Your task to perform on an android device: change the clock display to analog Image 0: 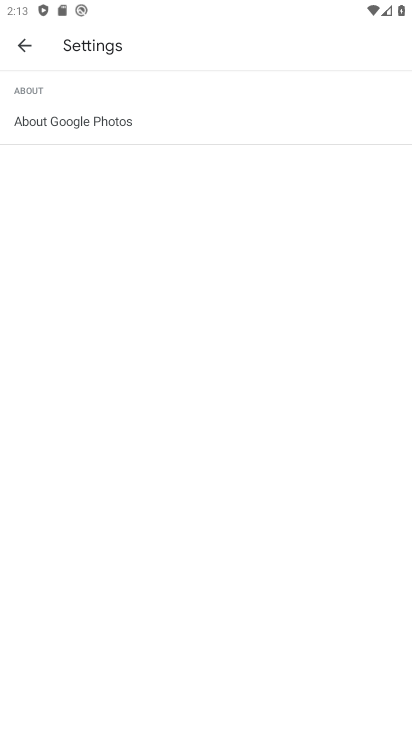
Step 0: press home button
Your task to perform on an android device: change the clock display to analog Image 1: 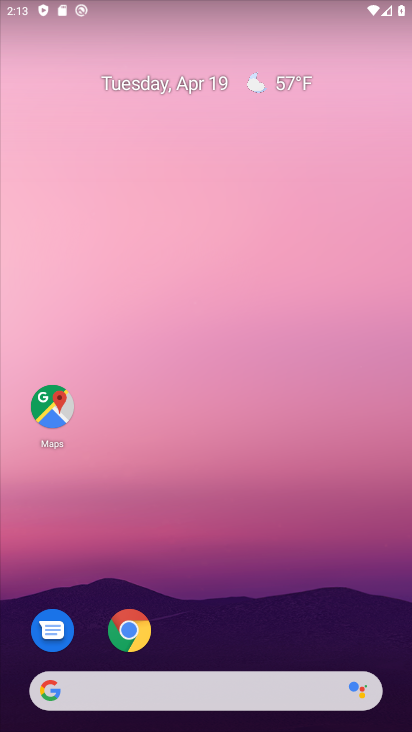
Step 1: drag from (235, 577) to (209, 91)
Your task to perform on an android device: change the clock display to analog Image 2: 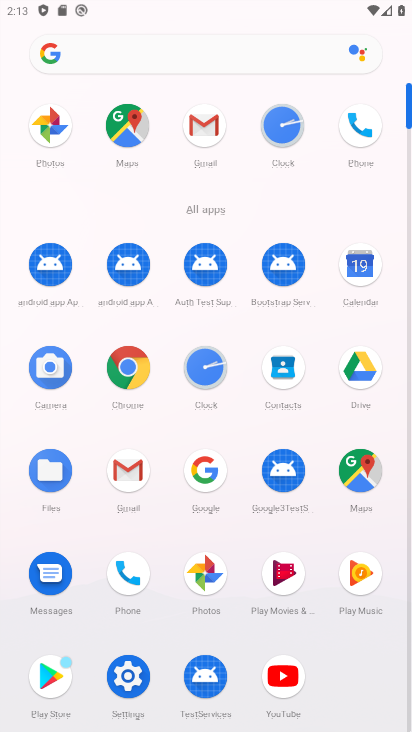
Step 2: click (279, 132)
Your task to perform on an android device: change the clock display to analog Image 3: 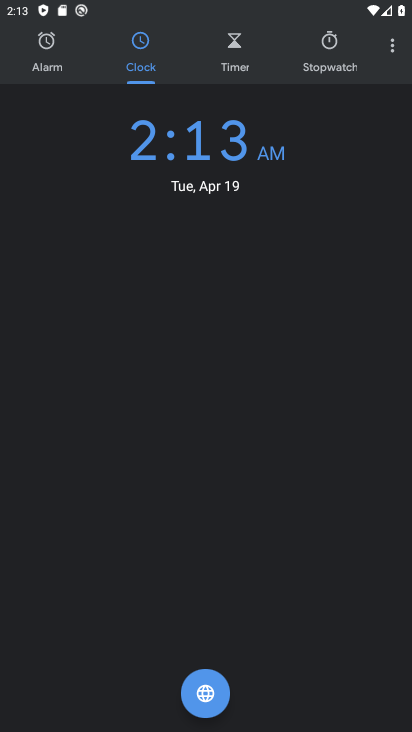
Step 3: click (386, 47)
Your task to perform on an android device: change the clock display to analog Image 4: 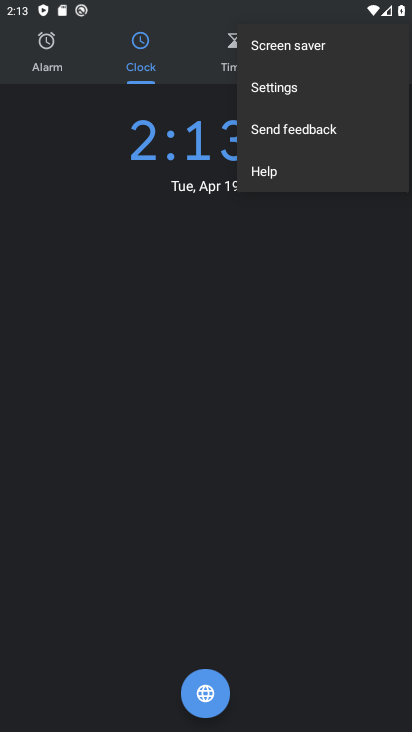
Step 4: click (281, 92)
Your task to perform on an android device: change the clock display to analog Image 5: 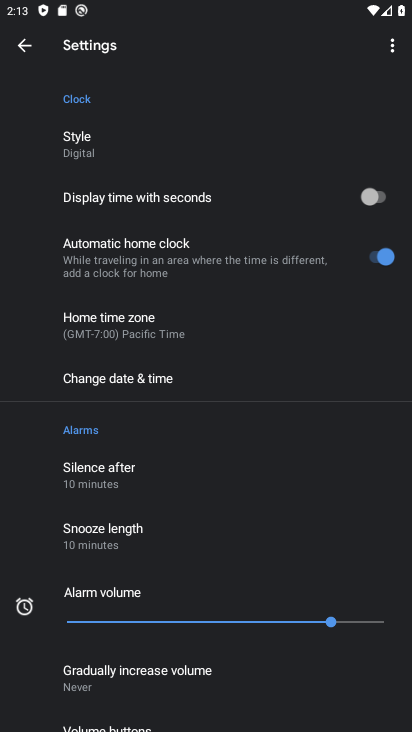
Step 5: click (134, 141)
Your task to perform on an android device: change the clock display to analog Image 6: 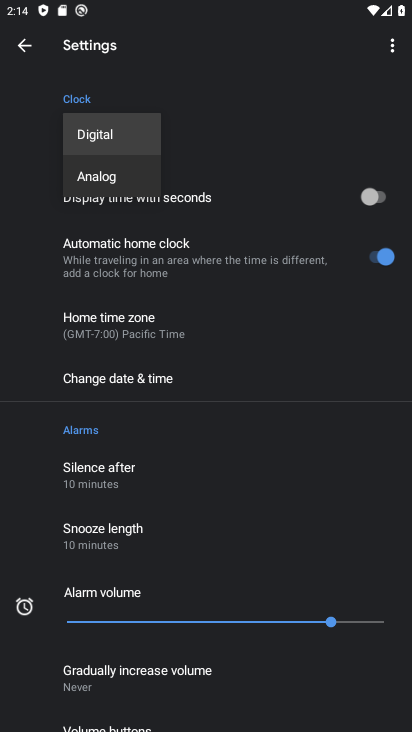
Step 6: click (127, 179)
Your task to perform on an android device: change the clock display to analog Image 7: 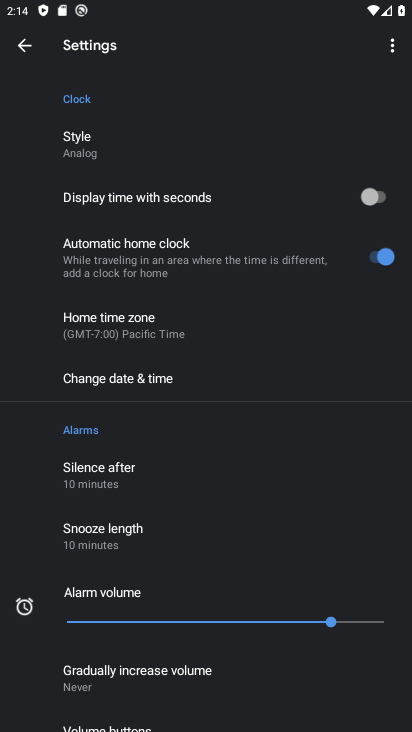
Step 7: task complete